Your task to perform on an android device: make emails show in primary in the gmail app Image 0: 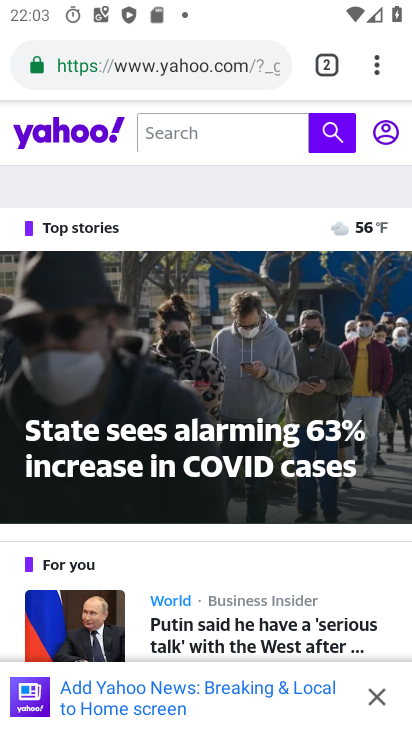
Step 0: press home button
Your task to perform on an android device: make emails show in primary in the gmail app Image 1: 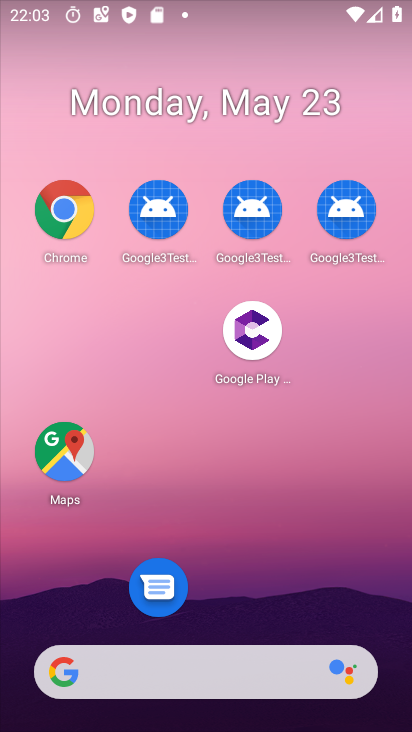
Step 1: drag from (299, 601) to (293, 75)
Your task to perform on an android device: make emails show in primary in the gmail app Image 2: 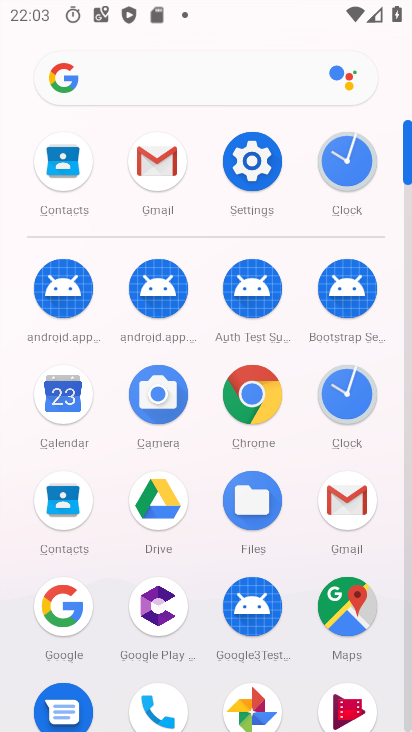
Step 2: click (343, 499)
Your task to perform on an android device: make emails show in primary in the gmail app Image 3: 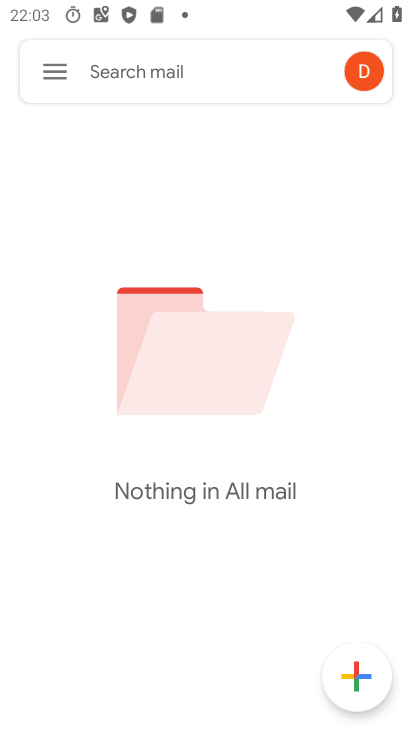
Step 3: click (61, 72)
Your task to perform on an android device: make emails show in primary in the gmail app Image 4: 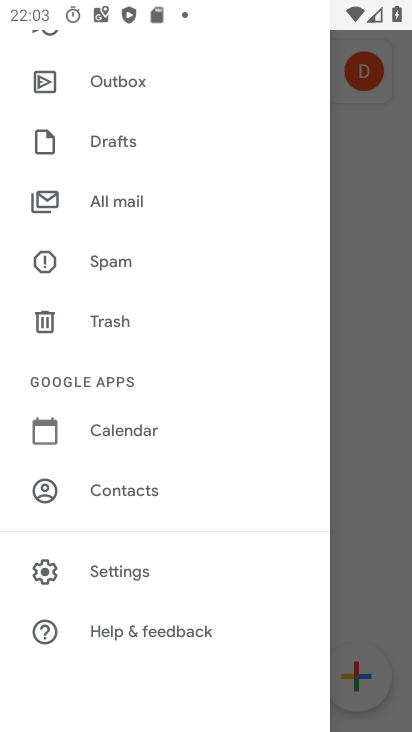
Step 4: click (130, 573)
Your task to perform on an android device: make emails show in primary in the gmail app Image 5: 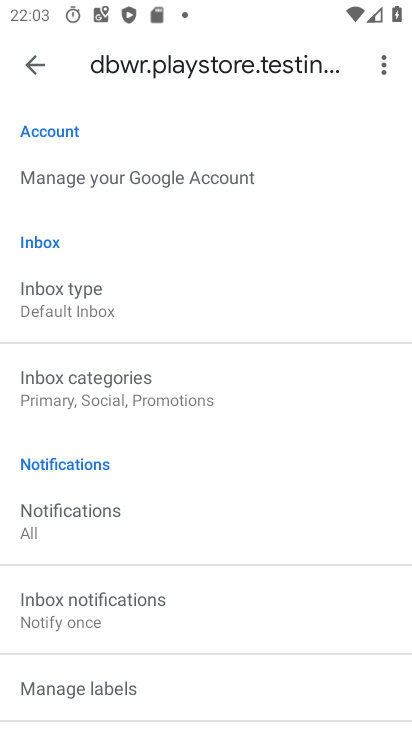
Step 5: click (149, 396)
Your task to perform on an android device: make emails show in primary in the gmail app Image 6: 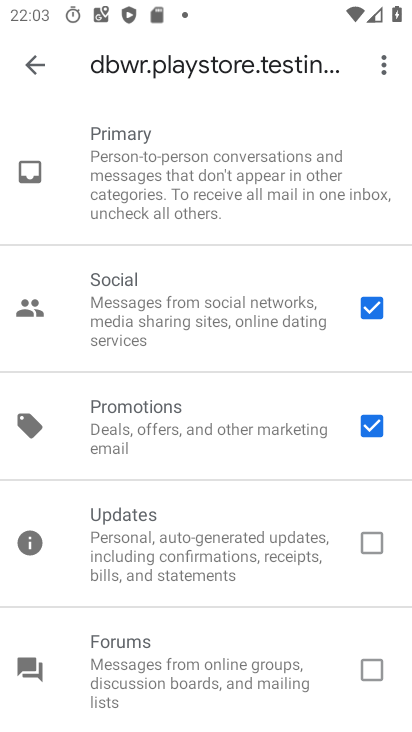
Step 6: click (373, 311)
Your task to perform on an android device: make emails show in primary in the gmail app Image 7: 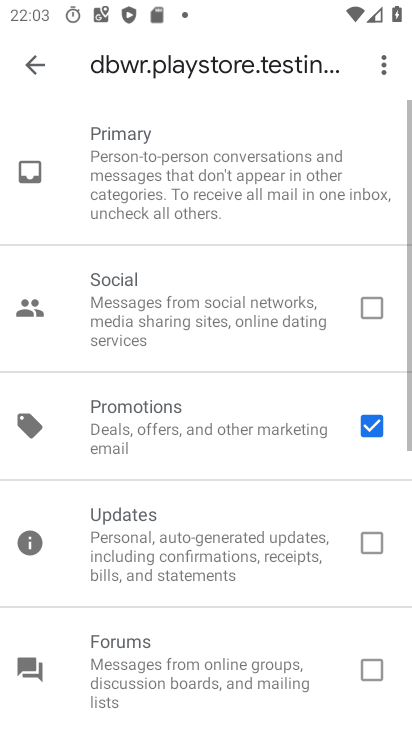
Step 7: click (374, 427)
Your task to perform on an android device: make emails show in primary in the gmail app Image 8: 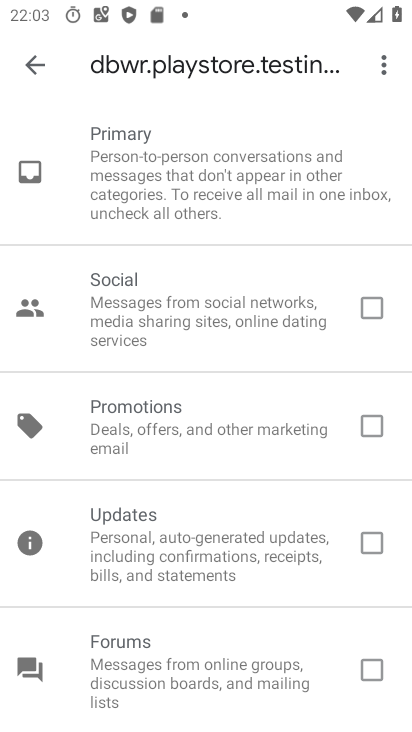
Step 8: task complete